Your task to perform on an android device: Open Maps and search for coffee Image 0: 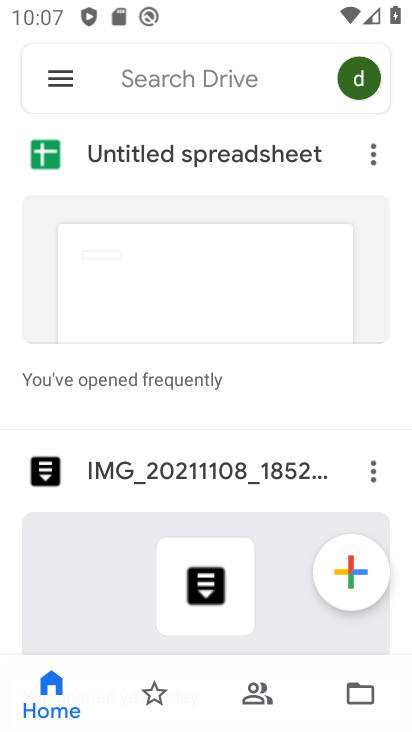
Step 0: press home button
Your task to perform on an android device: Open Maps and search for coffee Image 1: 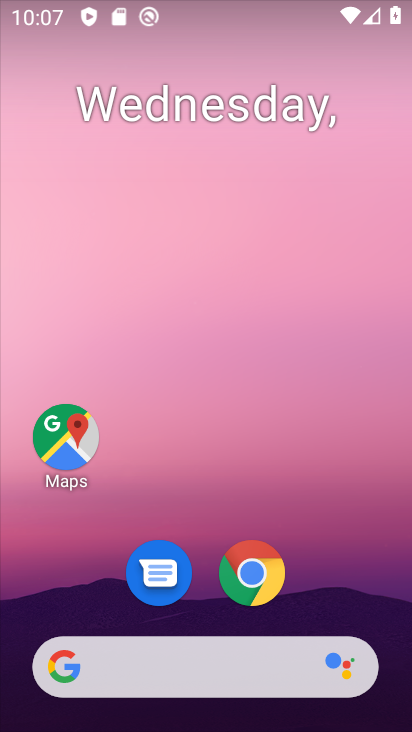
Step 1: click (57, 432)
Your task to perform on an android device: Open Maps and search for coffee Image 2: 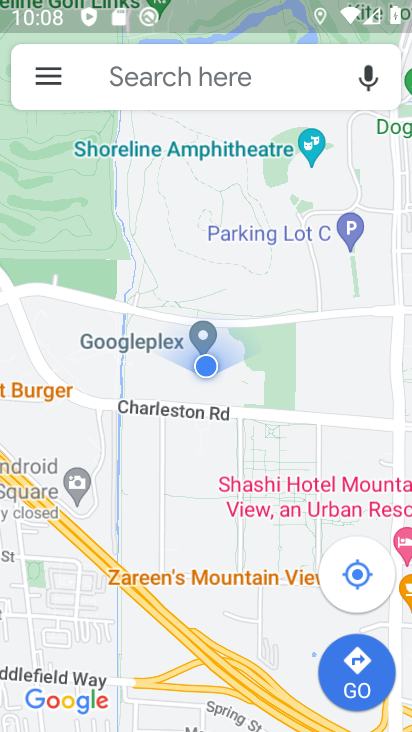
Step 2: click (157, 79)
Your task to perform on an android device: Open Maps and search for coffee Image 3: 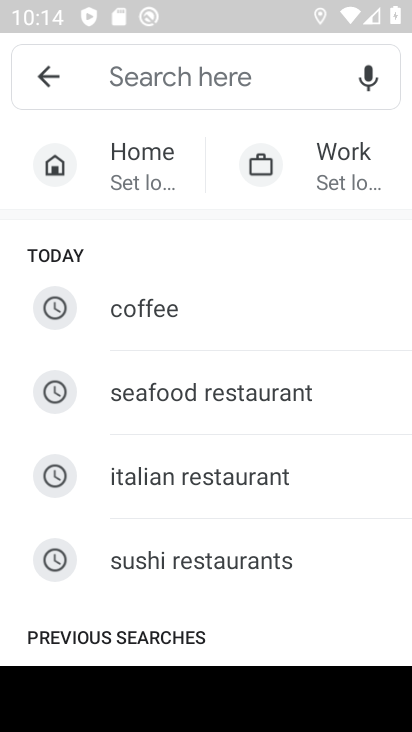
Step 3: click (214, 73)
Your task to perform on an android device: Open Maps and search for coffee Image 4: 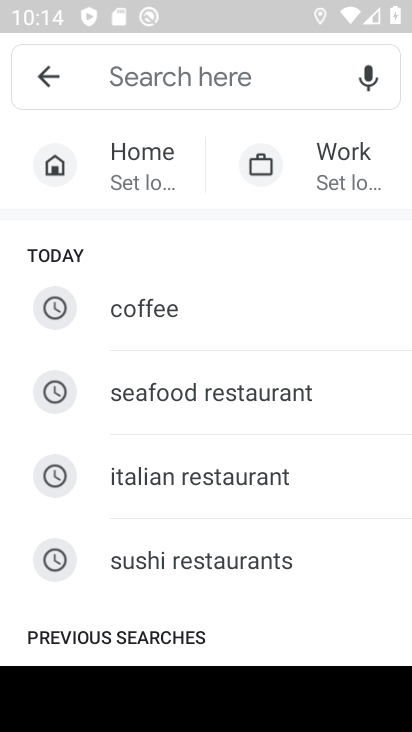
Step 4: click (141, 316)
Your task to perform on an android device: Open Maps and search for coffee Image 5: 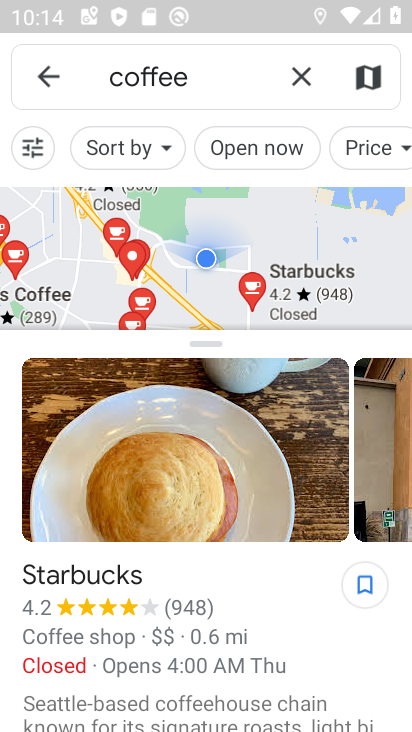
Step 5: task complete